Your task to perform on an android device: turn on the 12-hour format for clock Image 0: 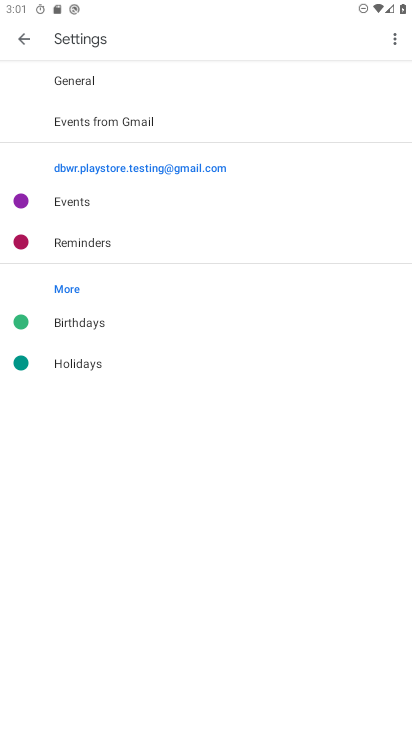
Step 0: press home button
Your task to perform on an android device: turn on the 12-hour format for clock Image 1: 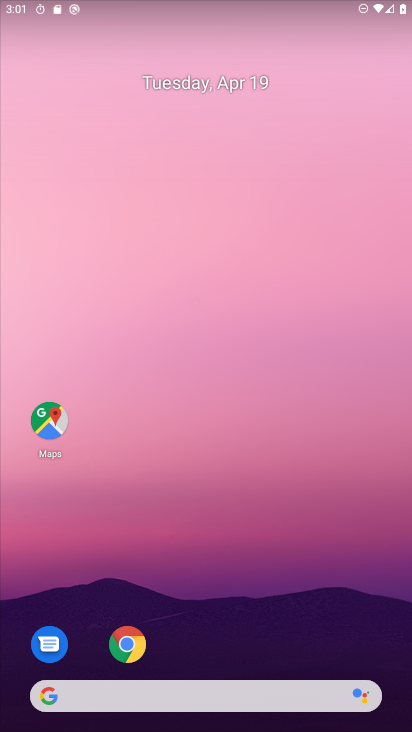
Step 1: drag from (162, 556) to (64, 70)
Your task to perform on an android device: turn on the 12-hour format for clock Image 2: 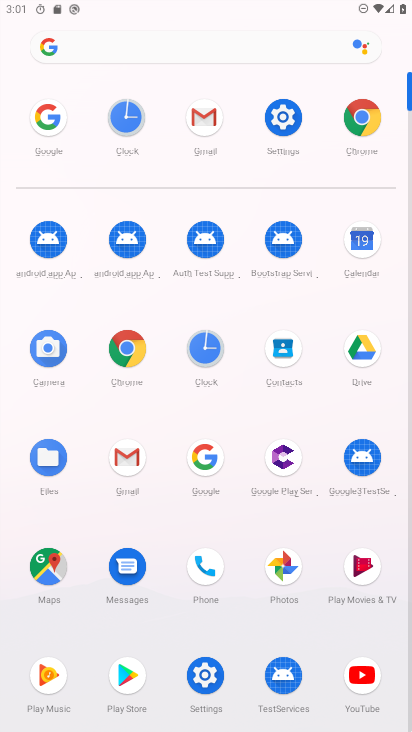
Step 2: click (121, 131)
Your task to perform on an android device: turn on the 12-hour format for clock Image 3: 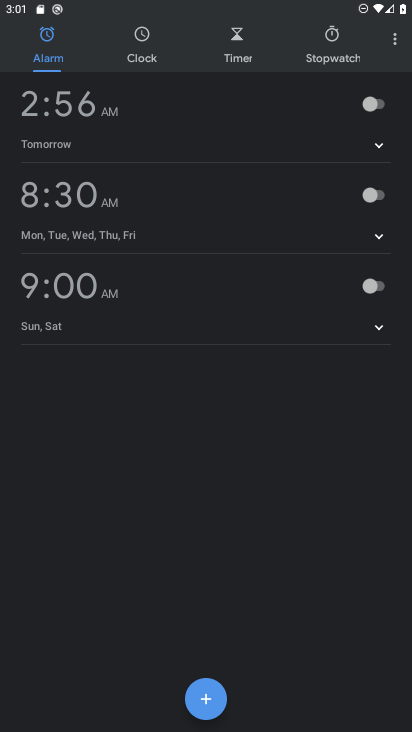
Step 3: click (394, 40)
Your task to perform on an android device: turn on the 12-hour format for clock Image 4: 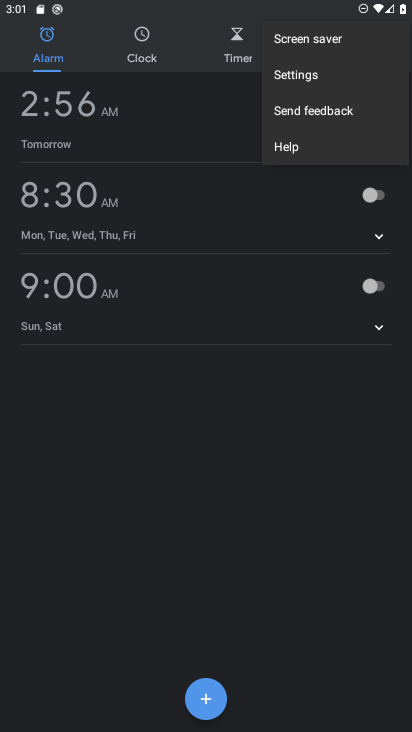
Step 4: click (302, 75)
Your task to perform on an android device: turn on the 12-hour format for clock Image 5: 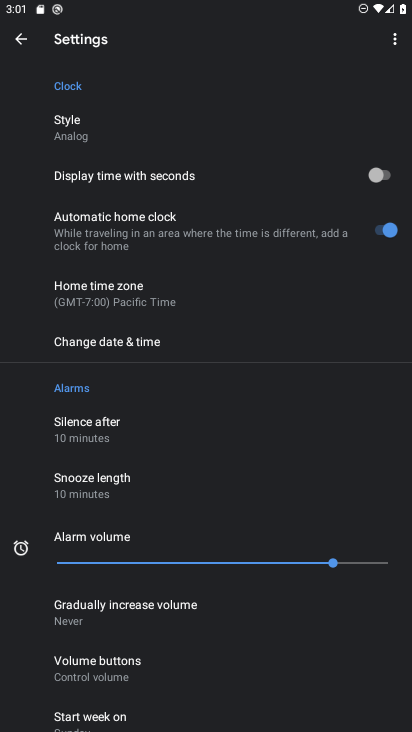
Step 5: click (133, 345)
Your task to perform on an android device: turn on the 12-hour format for clock Image 6: 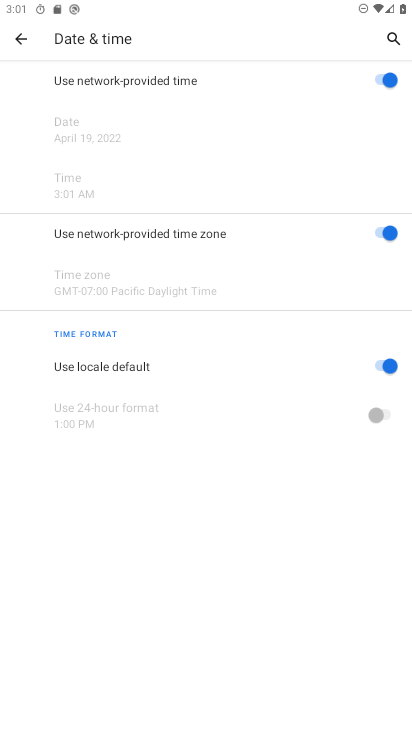
Step 6: task complete